Your task to perform on an android device: all mails in gmail Image 0: 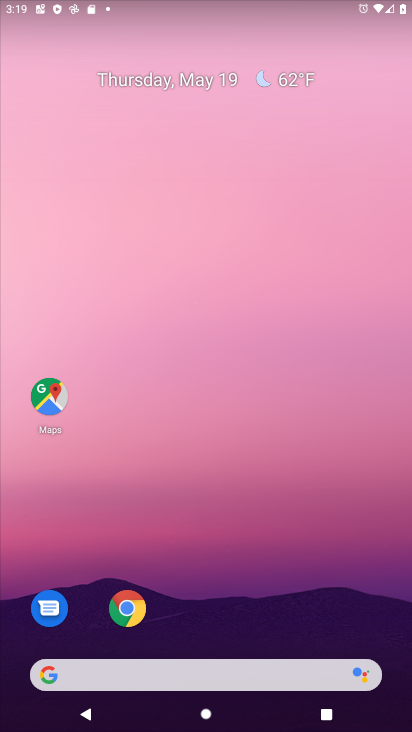
Step 0: drag from (204, 628) to (221, 114)
Your task to perform on an android device: all mails in gmail Image 1: 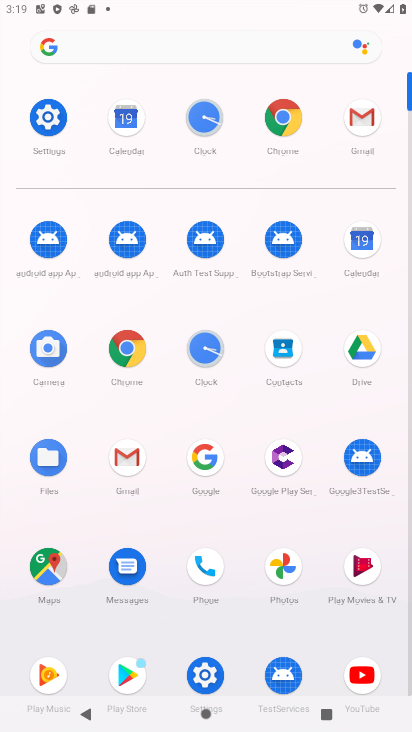
Step 1: click (118, 485)
Your task to perform on an android device: all mails in gmail Image 2: 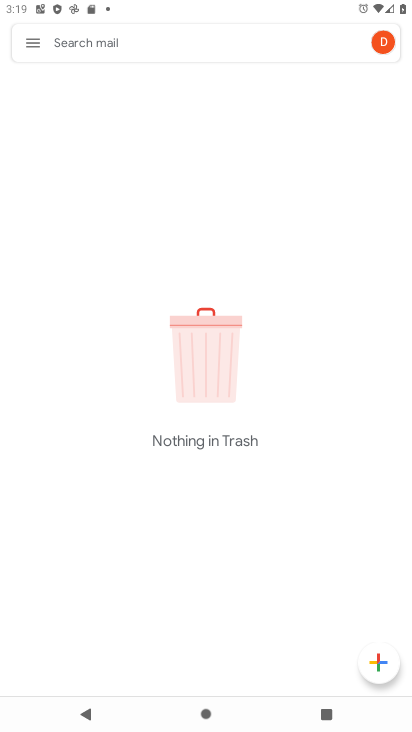
Step 2: task complete